Your task to perform on an android device: Find coffee shops on Maps Image 0: 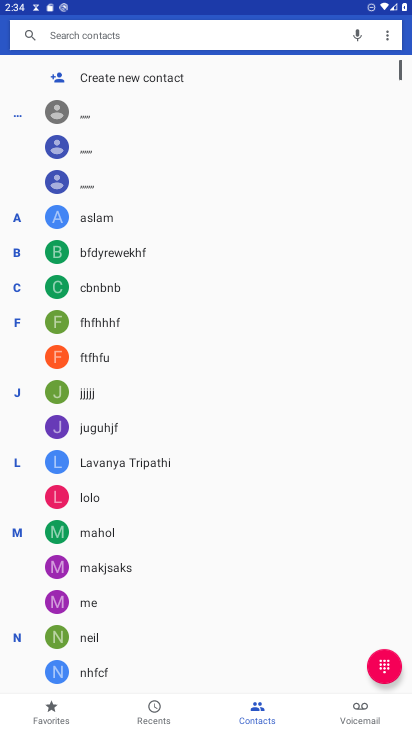
Step 0: press home button
Your task to perform on an android device: Find coffee shops on Maps Image 1: 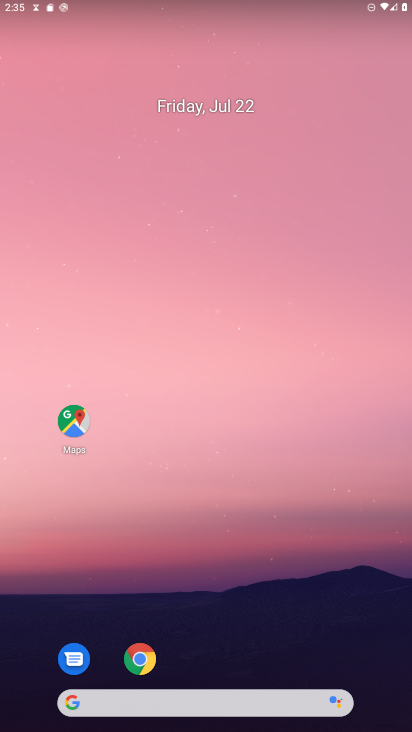
Step 1: drag from (288, 578) to (325, 1)
Your task to perform on an android device: Find coffee shops on Maps Image 2: 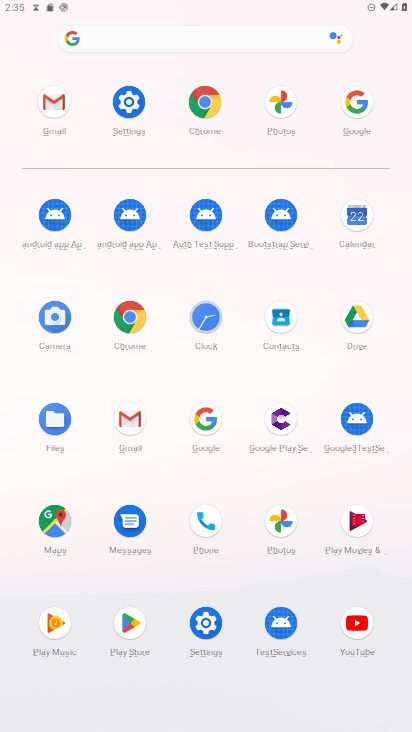
Step 2: click (60, 519)
Your task to perform on an android device: Find coffee shops on Maps Image 3: 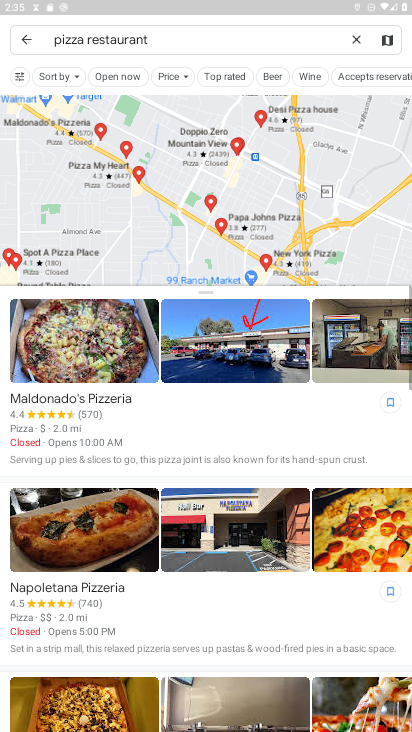
Step 3: click (18, 41)
Your task to perform on an android device: Find coffee shops on Maps Image 4: 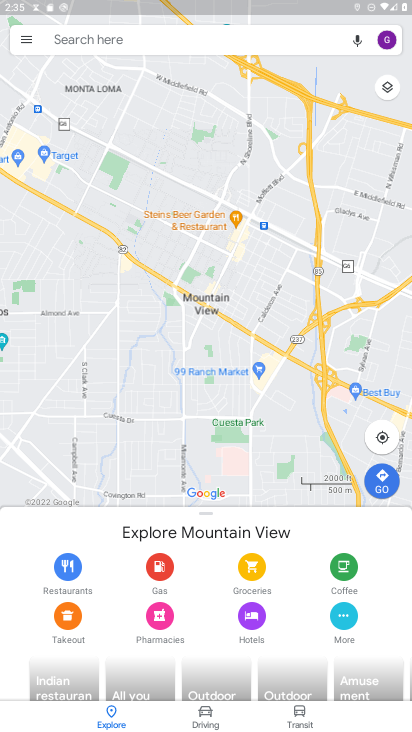
Step 4: click (108, 41)
Your task to perform on an android device: Find coffee shops on Maps Image 5: 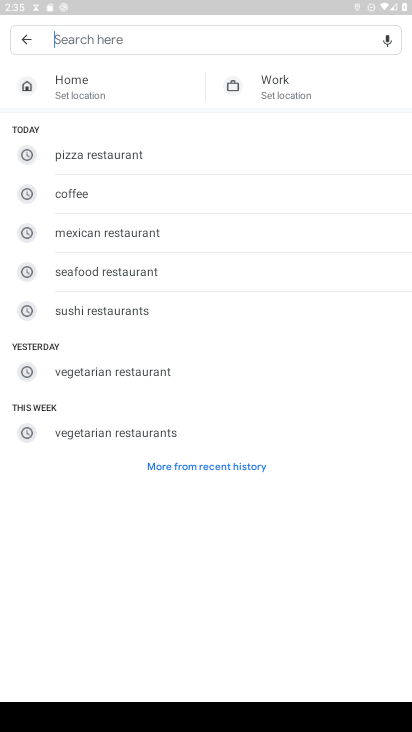
Step 5: click (98, 199)
Your task to perform on an android device: Find coffee shops on Maps Image 6: 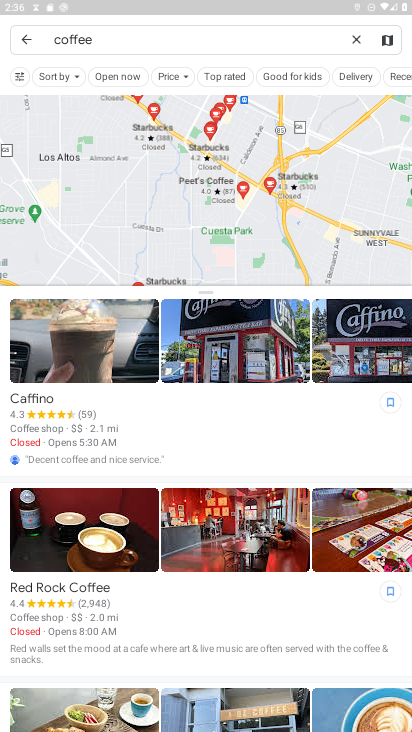
Step 6: task complete